Your task to perform on an android device: set the timer Image 0: 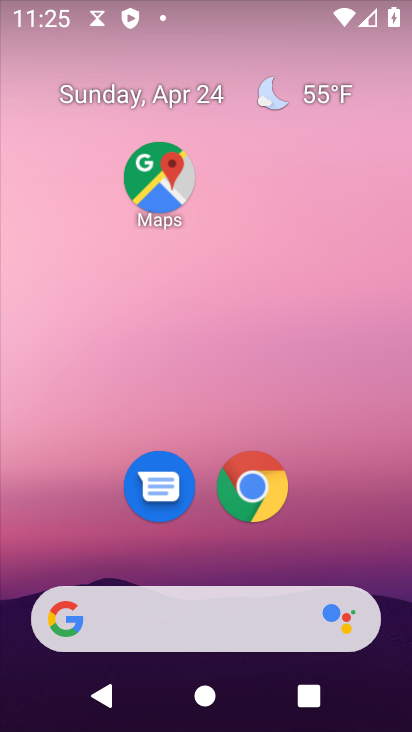
Step 0: drag from (336, 523) to (383, 71)
Your task to perform on an android device: set the timer Image 1: 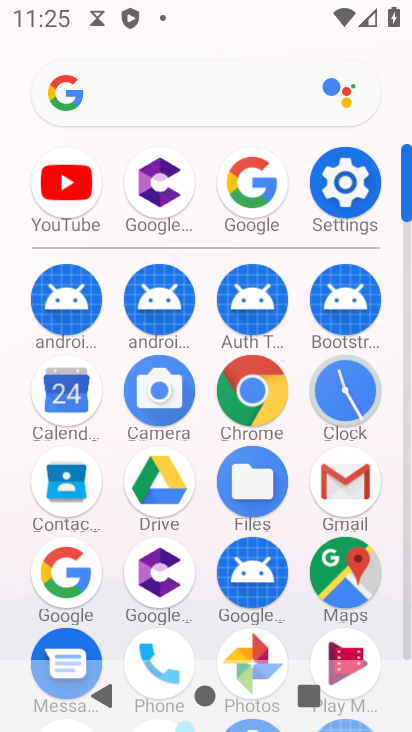
Step 1: click (342, 377)
Your task to perform on an android device: set the timer Image 2: 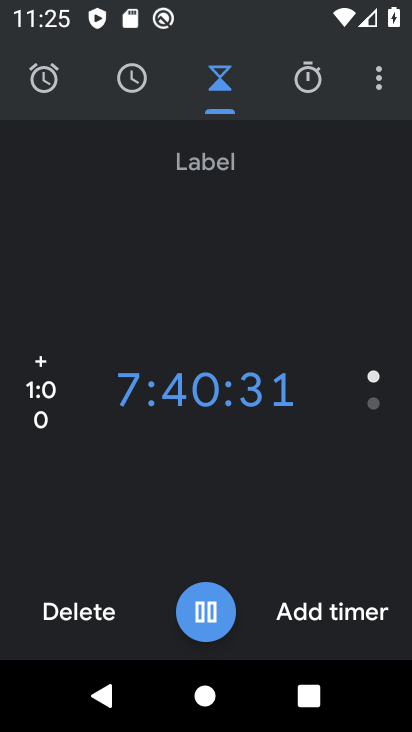
Step 2: click (304, 627)
Your task to perform on an android device: set the timer Image 3: 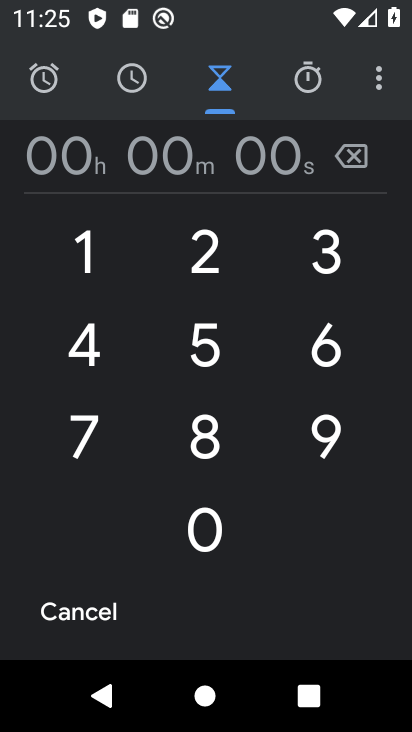
Step 3: click (192, 259)
Your task to perform on an android device: set the timer Image 4: 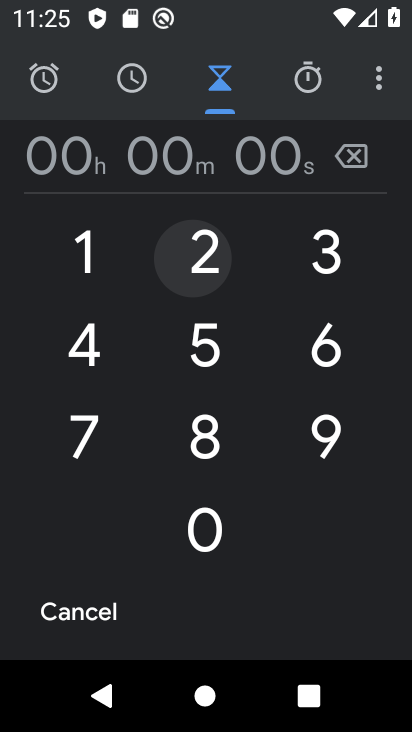
Step 4: click (193, 259)
Your task to perform on an android device: set the timer Image 5: 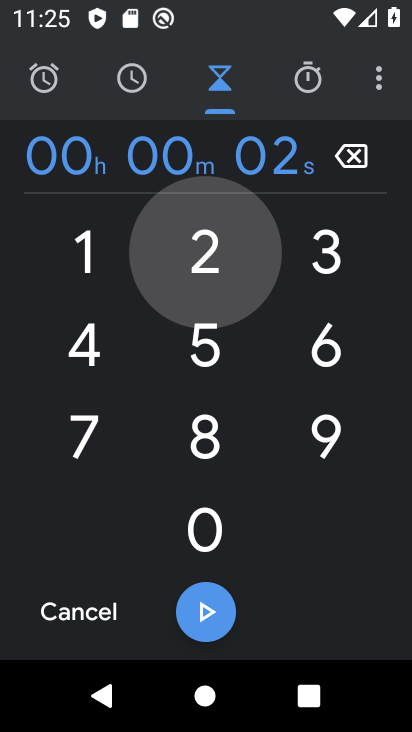
Step 5: click (193, 259)
Your task to perform on an android device: set the timer Image 6: 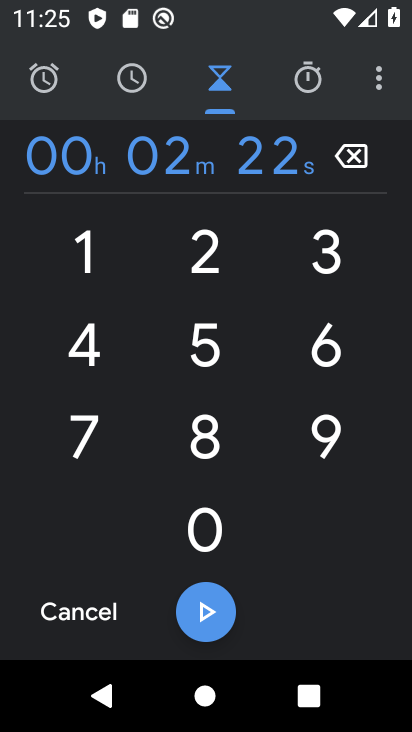
Step 6: click (197, 620)
Your task to perform on an android device: set the timer Image 7: 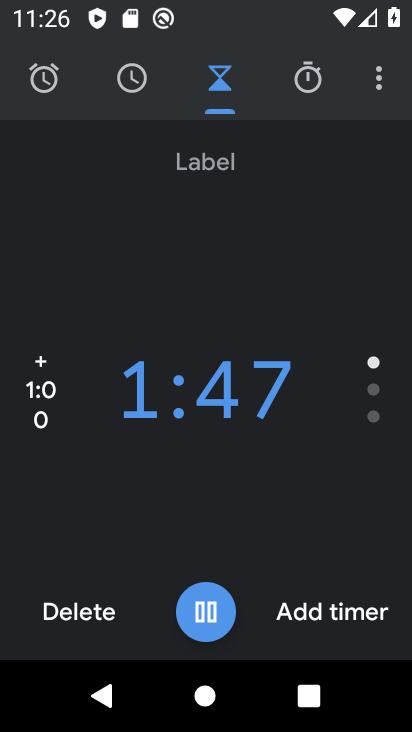
Step 7: task complete